Your task to perform on an android device: turn off notifications settings in the gmail app Image 0: 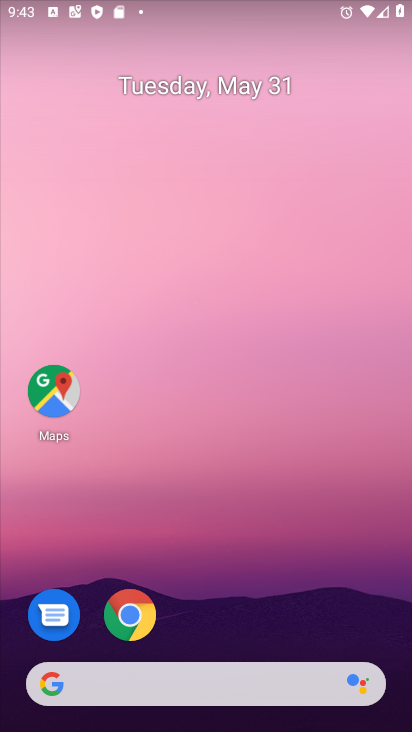
Step 0: drag from (371, 633) to (317, 51)
Your task to perform on an android device: turn off notifications settings in the gmail app Image 1: 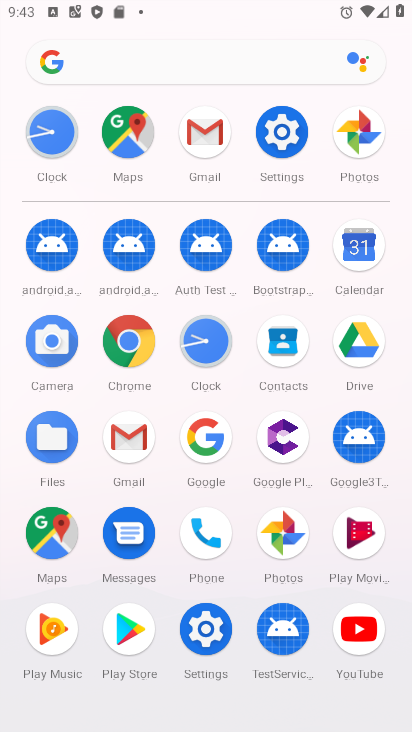
Step 1: click (125, 430)
Your task to perform on an android device: turn off notifications settings in the gmail app Image 2: 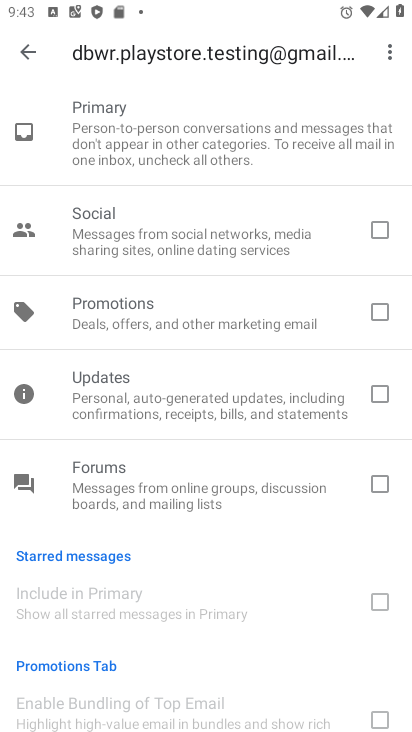
Step 2: press back button
Your task to perform on an android device: turn off notifications settings in the gmail app Image 3: 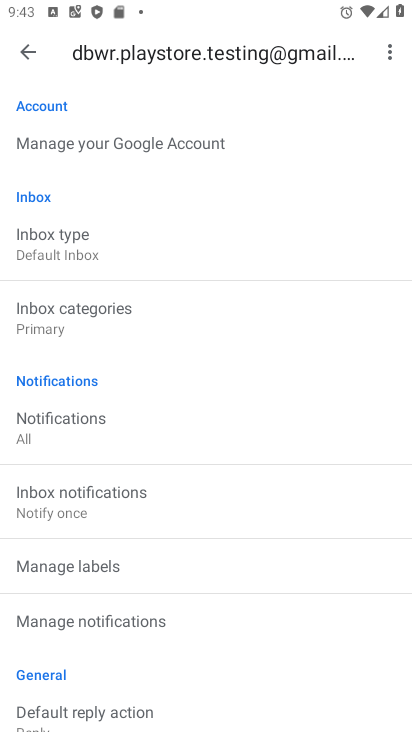
Step 3: click (128, 609)
Your task to perform on an android device: turn off notifications settings in the gmail app Image 4: 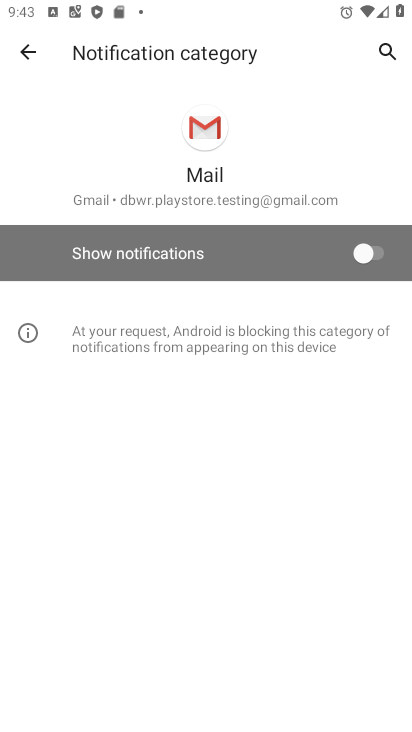
Step 4: task complete